Your task to perform on an android device: Open Yahoo.com Image 0: 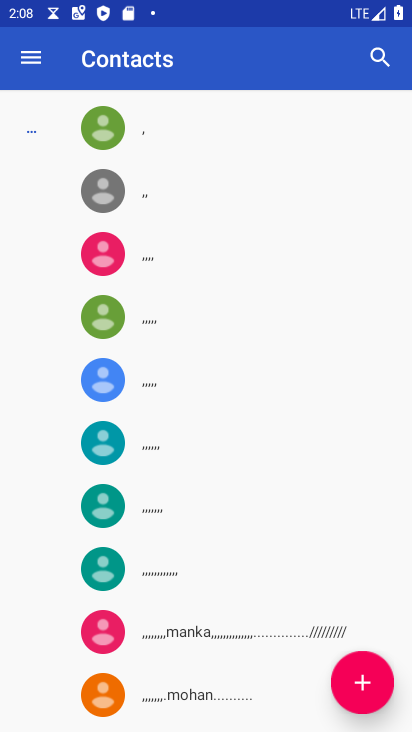
Step 0: press home button
Your task to perform on an android device: Open Yahoo.com Image 1: 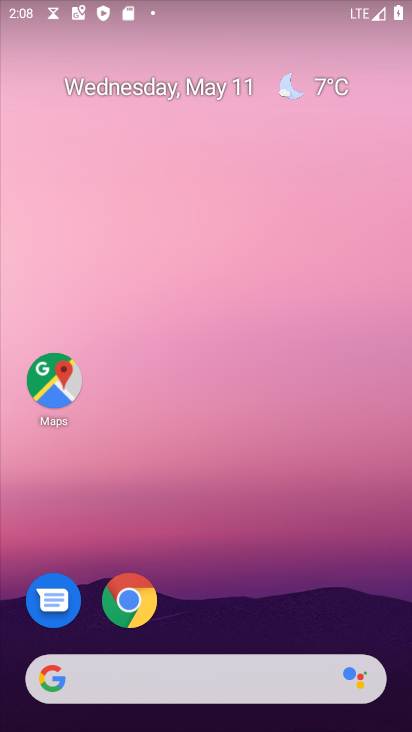
Step 1: click (153, 600)
Your task to perform on an android device: Open Yahoo.com Image 2: 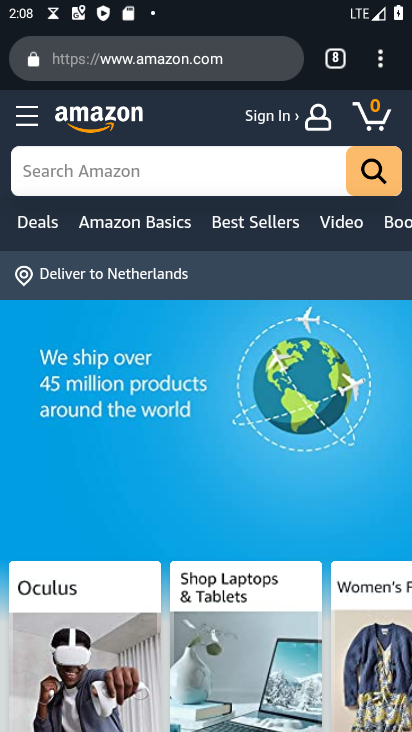
Step 2: click (338, 56)
Your task to perform on an android device: Open Yahoo.com Image 3: 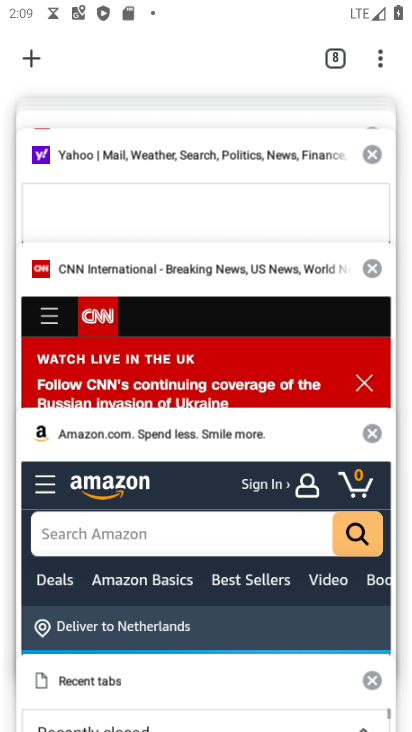
Step 3: click (164, 151)
Your task to perform on an android device: Open Yahoo.com Image 4: 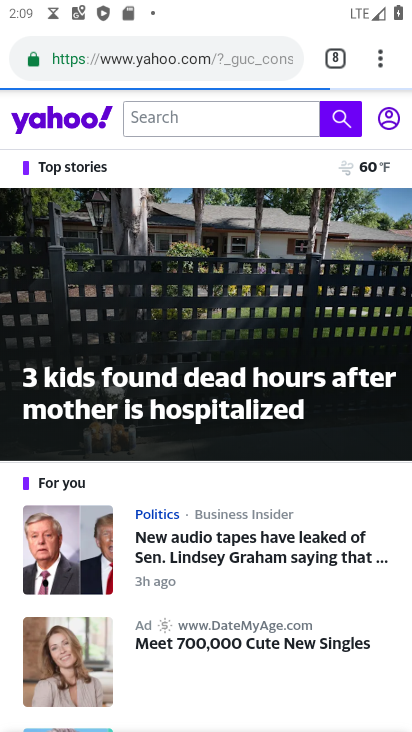
Step 4: task complete